Your task to perform on an android device: Go to sound settings Image 0: 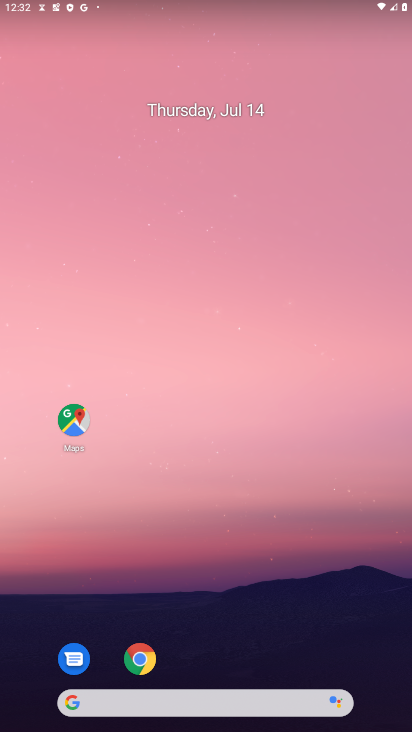
Step 0: drag from (42, 556) to (217, 38)
Your task to perform on an android device: Go to sound settings Image 1: 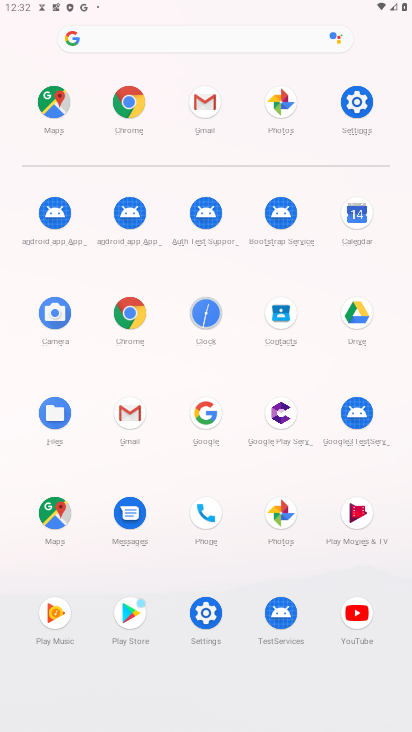
Step 1: click (213, 634)
Your task to perform on an android device: Go to sound settings Image 2: 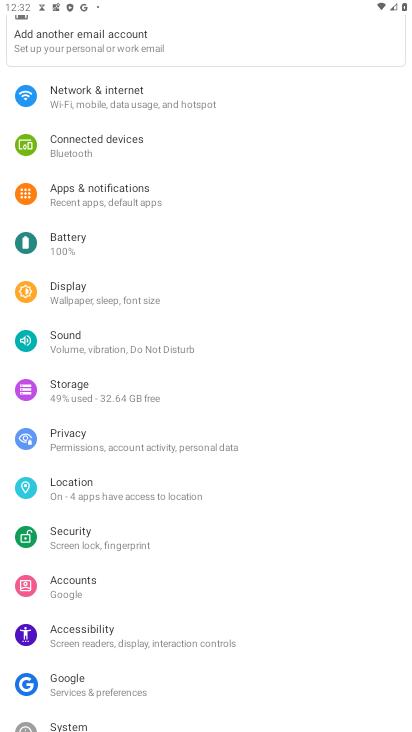
Step 2: click (108, 352)
Your task to perform on an android device: Go to sound settings Image 3: 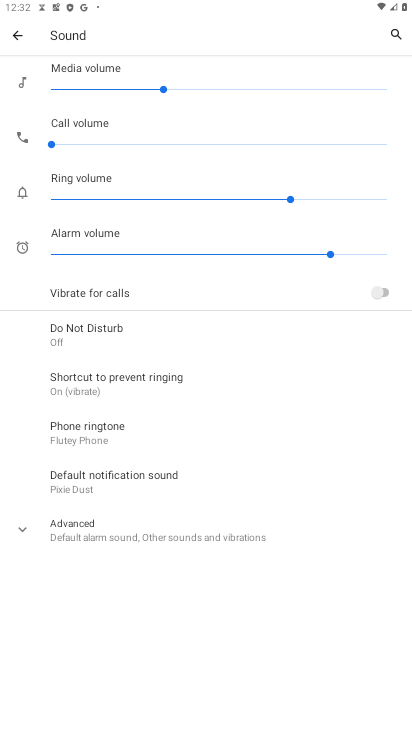
Step 3: task complete